Your task to perform on an android device: Go to location settings Image 0: 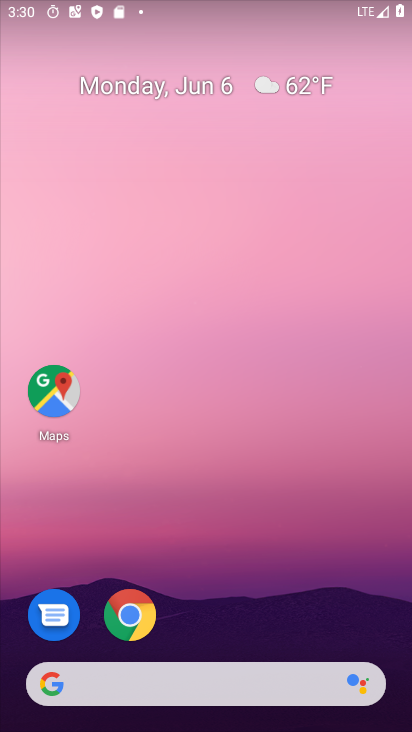
Step 0: drag from (238, 659) to (246, 43)
Your task to perform on an android device: Go to location settings Image 1: 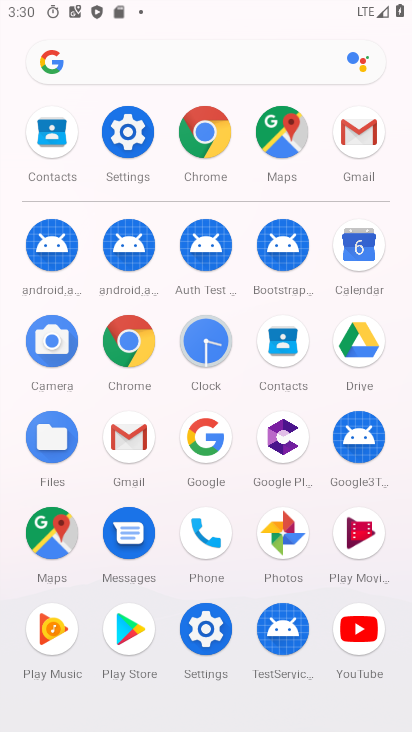
Step 1: click (124, 140)
Your task to perform on an android device: Go to location settings Image 2: 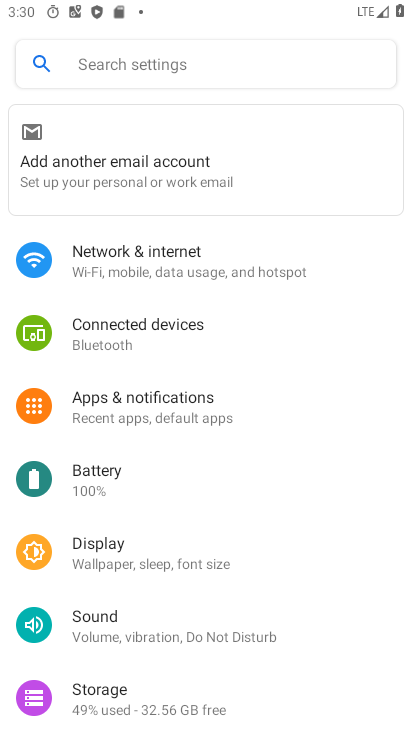
Step 2: drag from (137, 648) to (151, 188)
Your task to perform on an android device: Go to location settings Image 3: 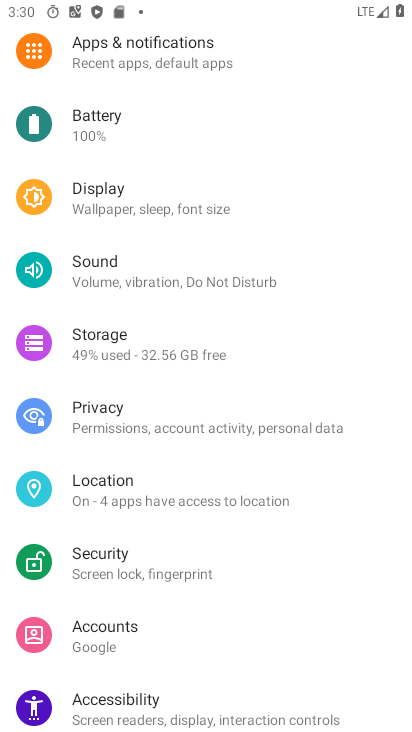
Step 3: click (124, 492)
Your task to perform on an android device: Go to location settings Image 4: 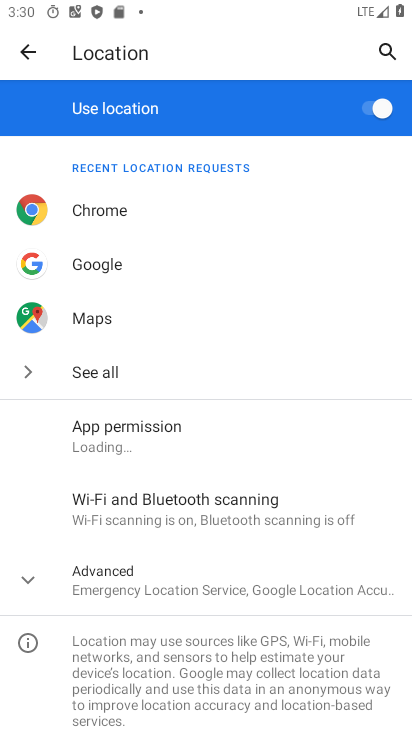
Step 4: task complete